Your task to perform on an android device: Do I have any events tomorrow? Image 0: 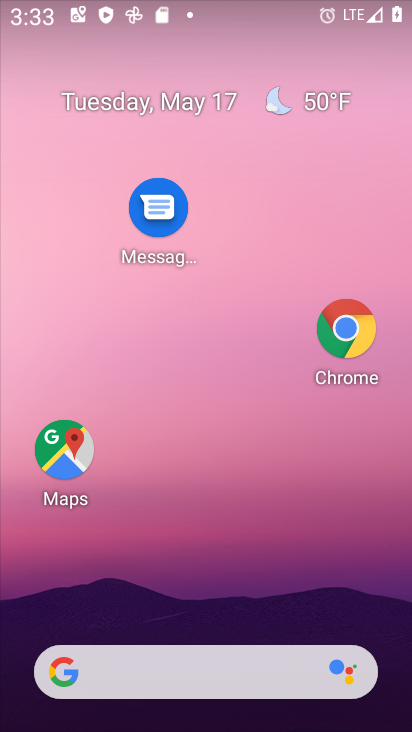
Step 0: drag from (173, 592) to (316, 95)
Your task to perform on an android device: Do I have any events tomorrow? Image 1: 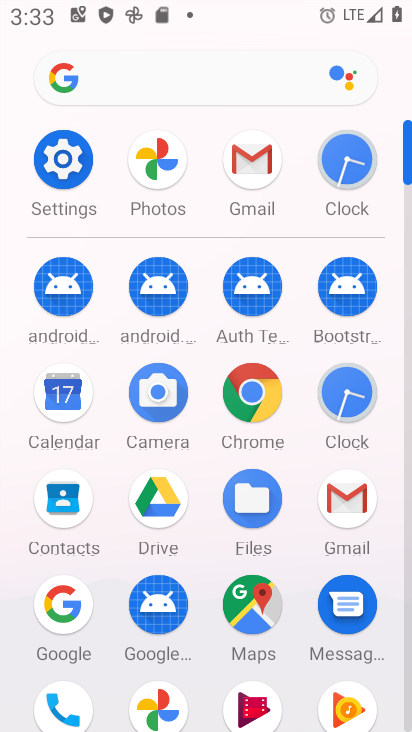
Step 1: click (76, 413)
Your task to perform on an android device: Do I have any events tomorrow? Image 2: 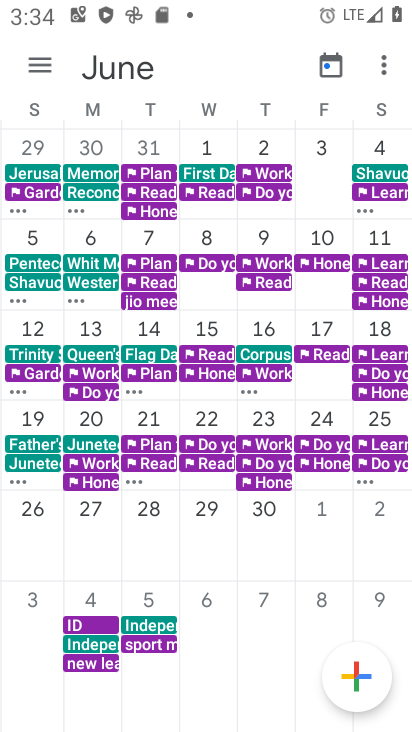
Step 2: task complete